Your task to perform on an android device: check out phone information Image 0: 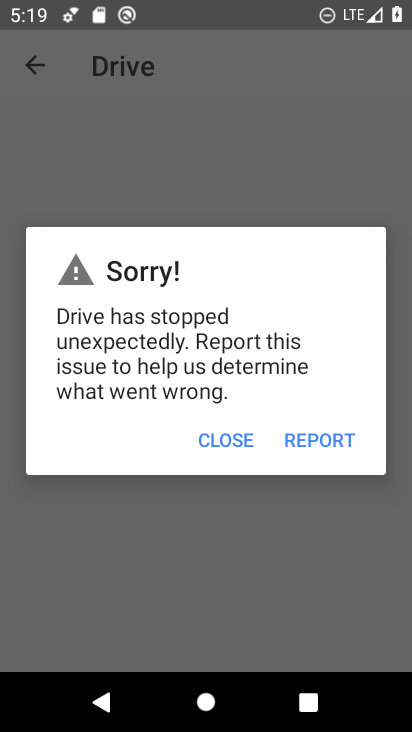
Step 0: press home button
Your task to perform on an android device: check out phone information Image 1: 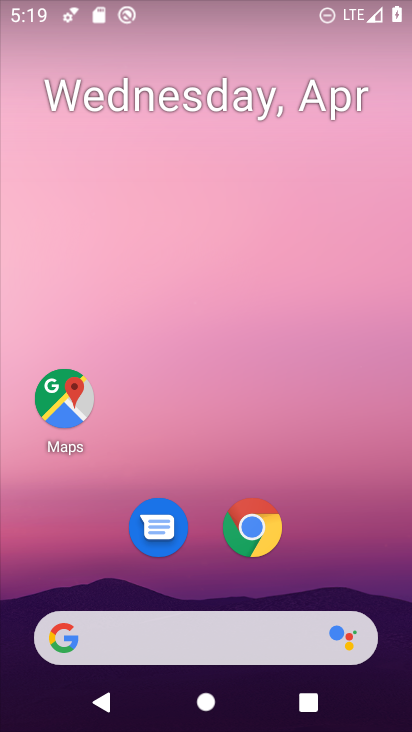
Step 1: drag from (381, 607) to (342, 6)
Your task to perform on an android device: check out phone information Image 2: 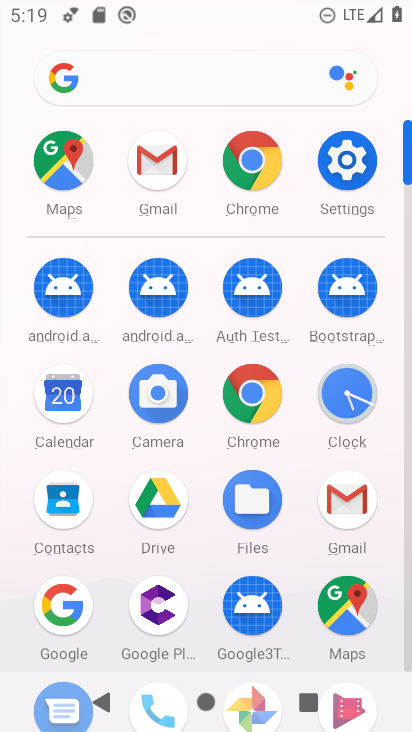
Step 2: click (348, 167)
Your task to perform on an android device: check out phone information Image 3: 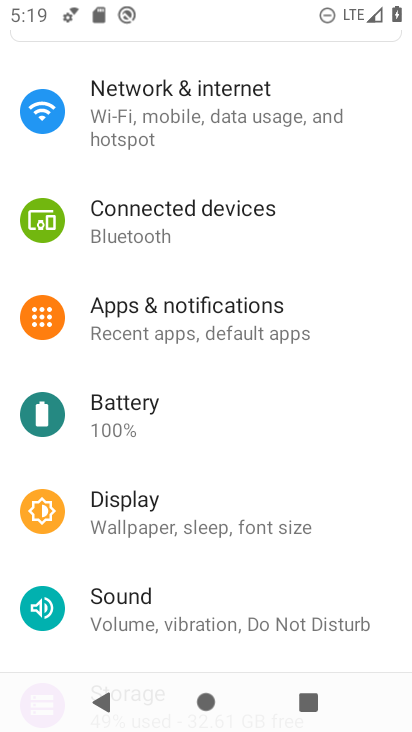
Step 3: drag from (330, 515) to (285, 57)
Your task to perform on an android device: check out phone information Image 4: 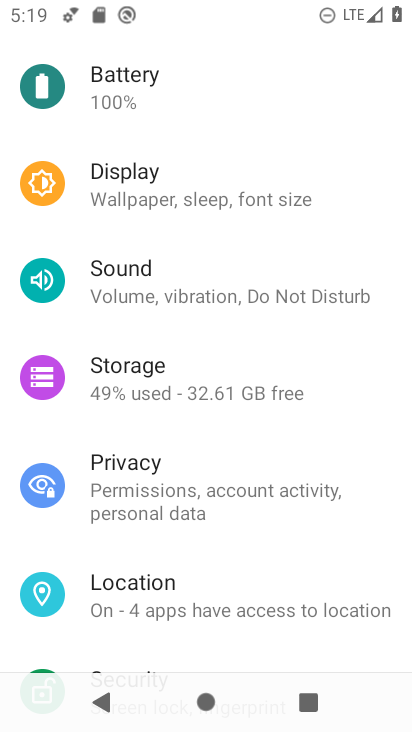
Step 4: drag from (283, 546) to (233, 145)
Your task to perform on an android device: check out phone information Image 5: 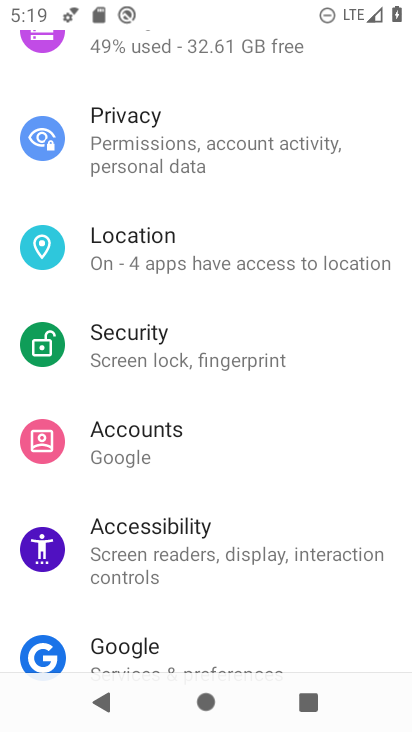
Step 5: drag from (238, 563) to (244, 146)
Your task to perform on an android device: check out phone information Image 6: 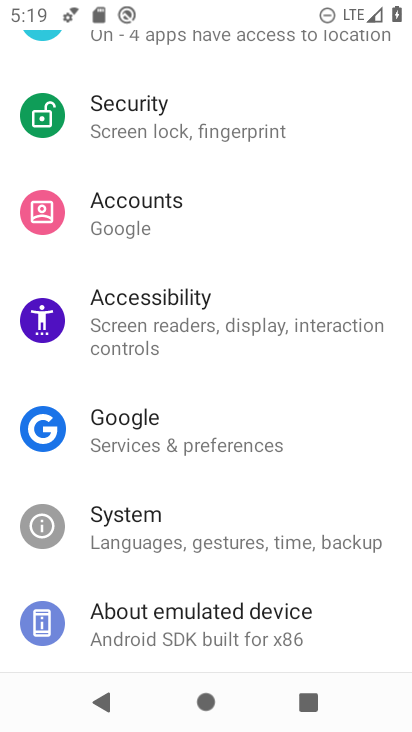
Step 6: click (188, 629)
Your task to perform on an android device: check out phone information Image 7: 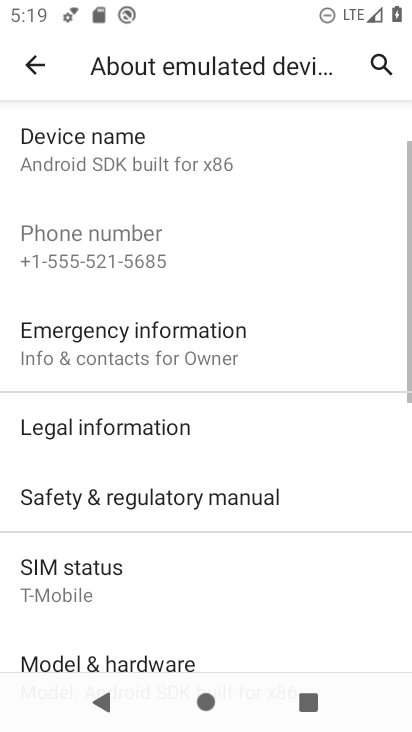
Step 7: task complete